Your task to perform on an android device: See recent photos Image 0: 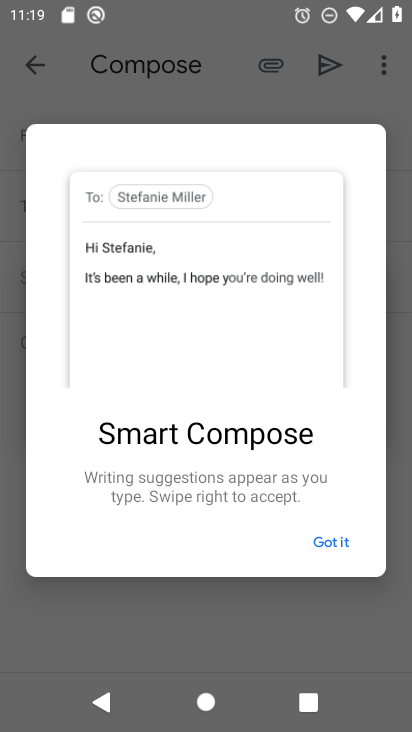
Step 0: press home button
Your task to perform on an android device: See recent photos Image 1: 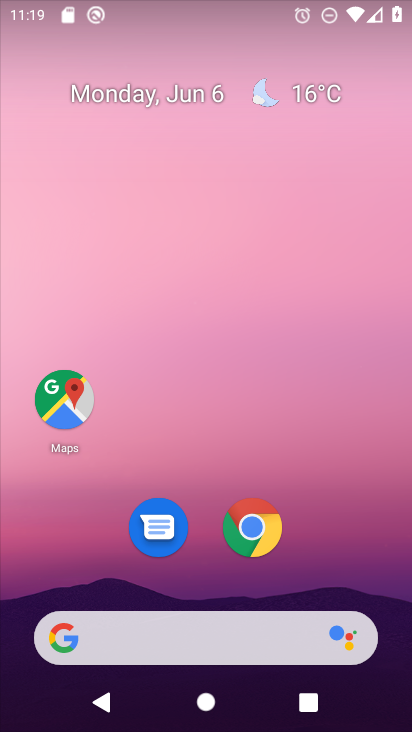
Step 1: drag from (341, 551) to (347, 233)
Your task to perform on an android device: See recent photos Image 2: 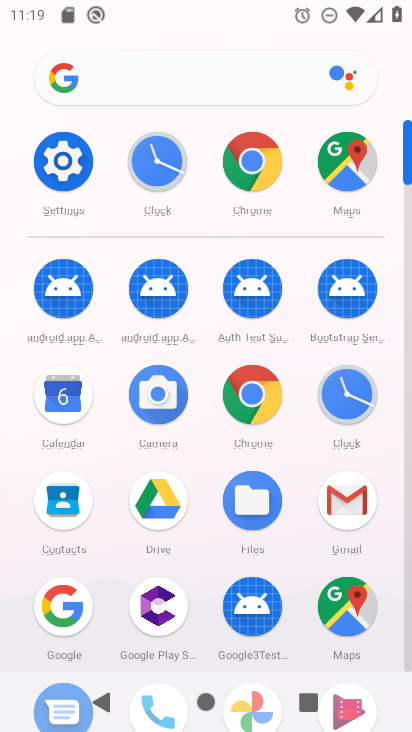
Step 2: drag from (297, 542) to (308, 284)
Your task to perform on an android device: See recent photos Image 3: 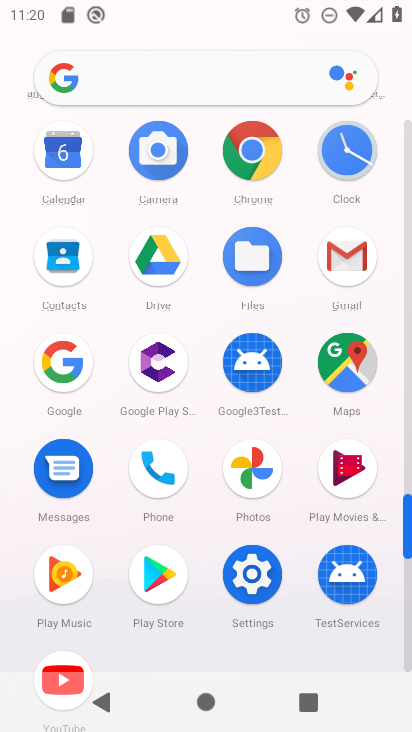
Step 3: click (253, 491)
Your task to perform on an android device: See recent photos Image 4: 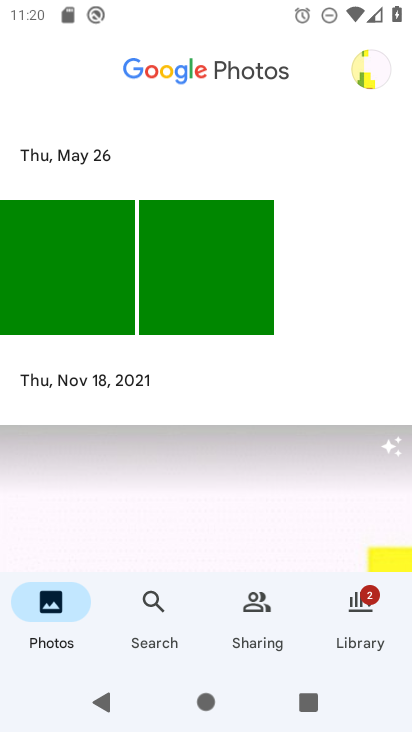
Step 4: click (58, 246)
Your task to perform on an android device: See recent photos Image 5: 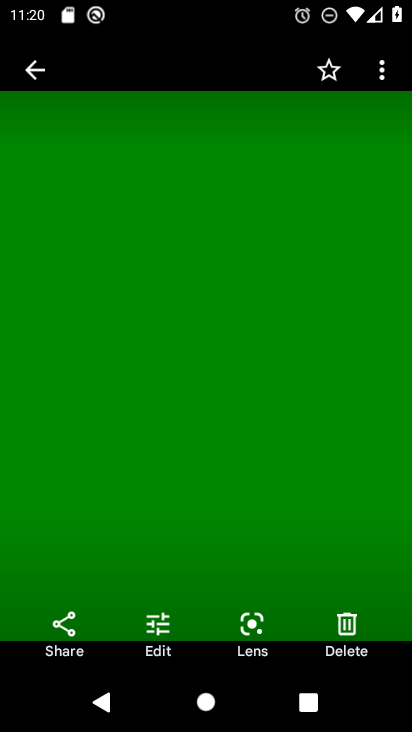
Step 5: task complete